Your task to perform on an android device: allow cookies in the chrome app Image 0: 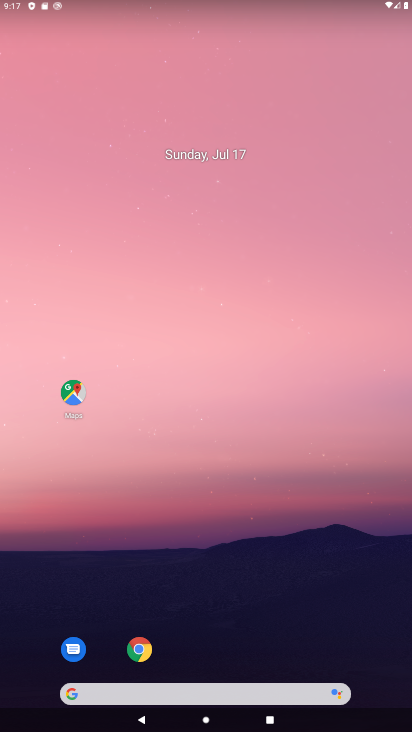
Step 0: click (139, 649)
Your task to perform on an android device: allow cookies in the chrome app Image 1: 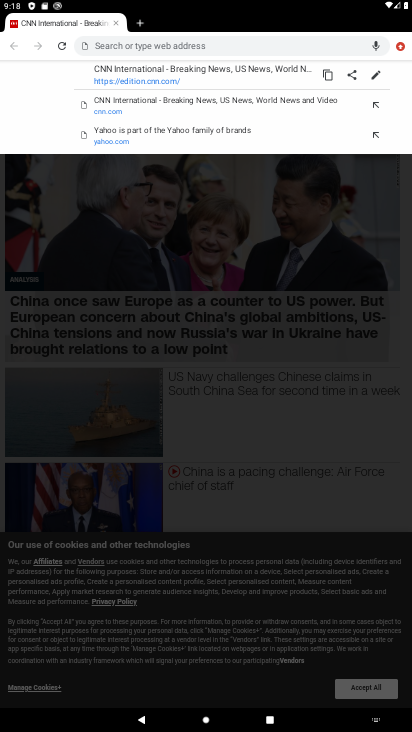
Step 1: task complete